Your task to perform on an android device: Clear the cart on amazon.com. Image 0: 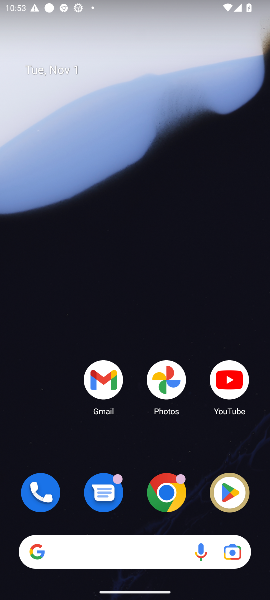
Step 0: press home button
Your task to perform on an android device: Clear the cart on amazon.com. Image 1: 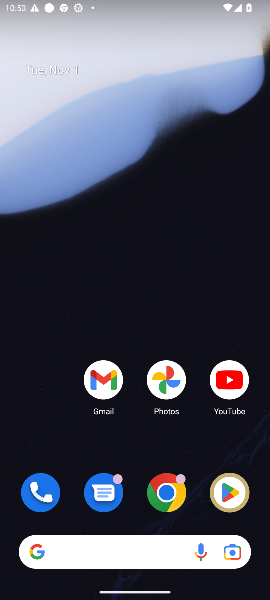
Step 1: type "amazone.com"
Your task to perform on an android device: Clear the cart on amazon.com. Image 2: 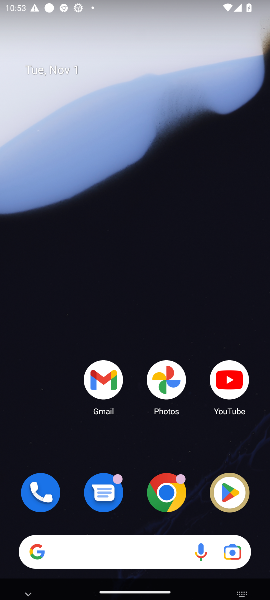
Step 2: type ""
Your task to perform on an android device: Clear the cart on amazon.com. Image 3: 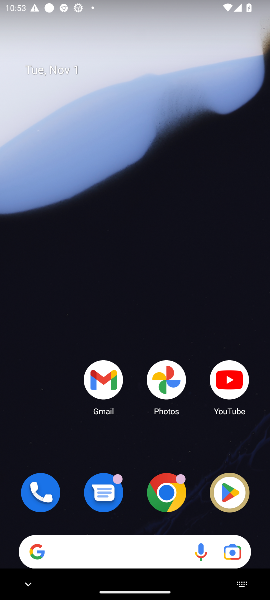
Step 3: click (177, 487)
Your task to perform on an android device: Clear the cart on amazon.com. Image 4: 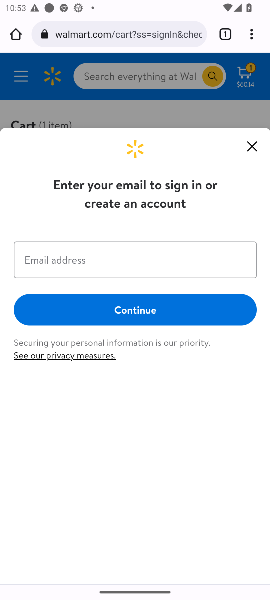
Step 4: click (120, 31)
Your task to perform on an android device: Clear the cart on amazon.com. Image 5: 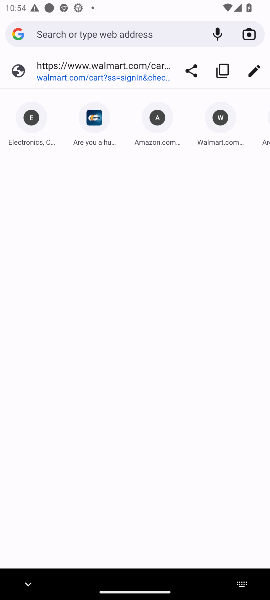
Step 5: type "amazone.com"
Your task to perform on an android device: Clear the cart on amazon.com. Image 6: 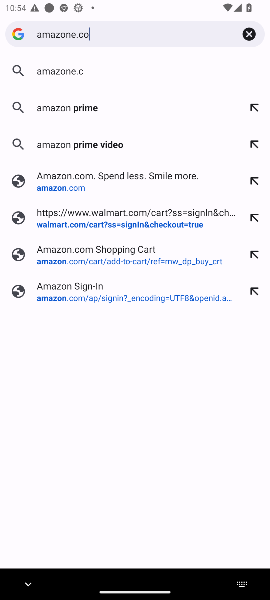
Step 6: type ""
Your task to perform on an android device: Clear the cart on amazon.com. Image 7: 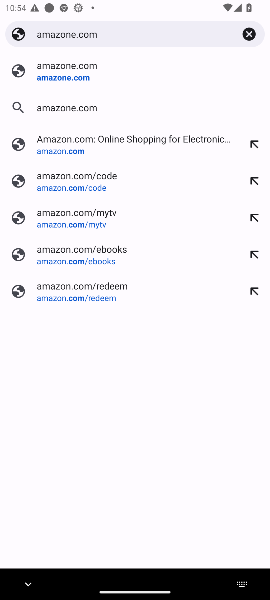
Step 7: click (82, 142)
Your task to perform on an android device: Clear the cart on amazon.com. Image 8: 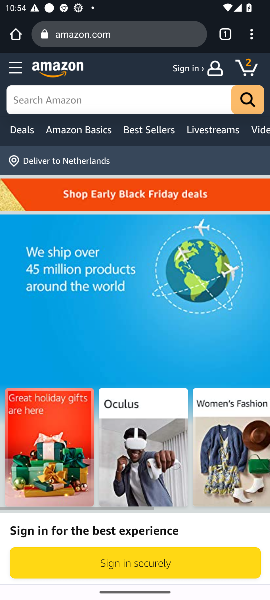
Step 8: click (254, 77)
Your task to perform on an android device: Clear the cart on amazon.com. Image 9: 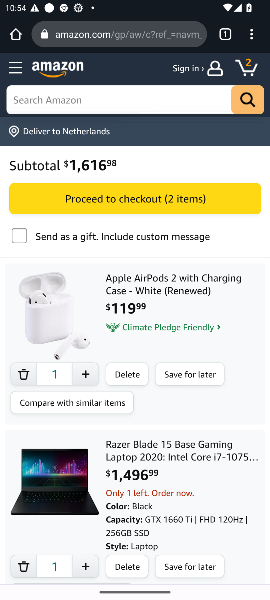
Step 9: click (128, 375)
Your task to perform on an android device: Clear the cart on amazon.com. Image 10: 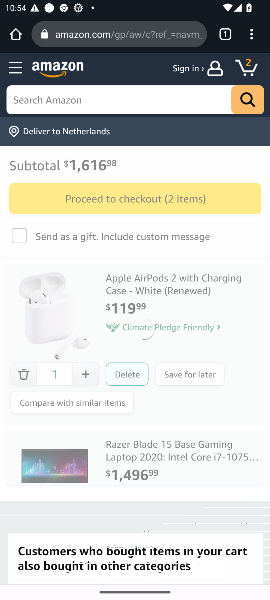
Step 10: drag from (179, 420) to (192, 228)
Your task to perform on an android device: Clear the cart on amazon.com. Image 11: 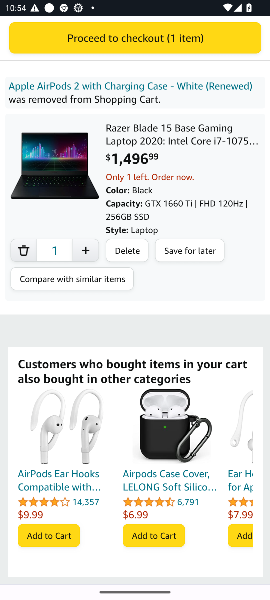
Step 11: click (134, 253)
Your task to perform on an android device: Clear the cart on amazon.com. Image 12: 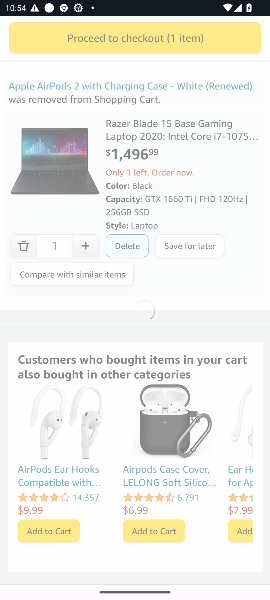
Step 12: drag from (178, 267) to (186, 435)
Your task to perform on an android device: Clear the cart on amazon.com. Image 13: 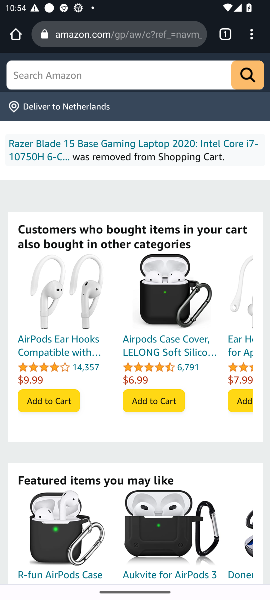
Step 13: drag from (157, 283) to (156, 460)
Your task to perform on an android device: Clear the cart on amazon.com. Image 14: 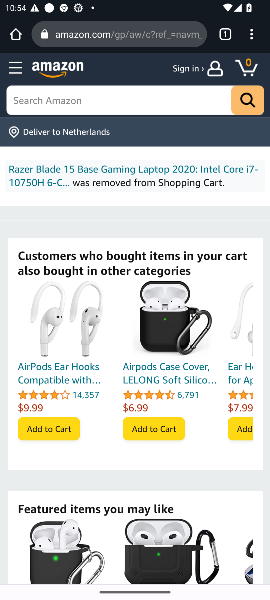
Step 14: click (249, 65)
Your task to perform on an android device: Clear the cart on amazon.com. Image 15: 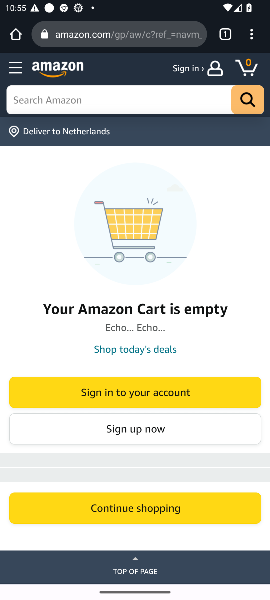
Step 15: task complete